Your task to perform on an android device: Open Google Chrome and open the bookmarks view Image 0: 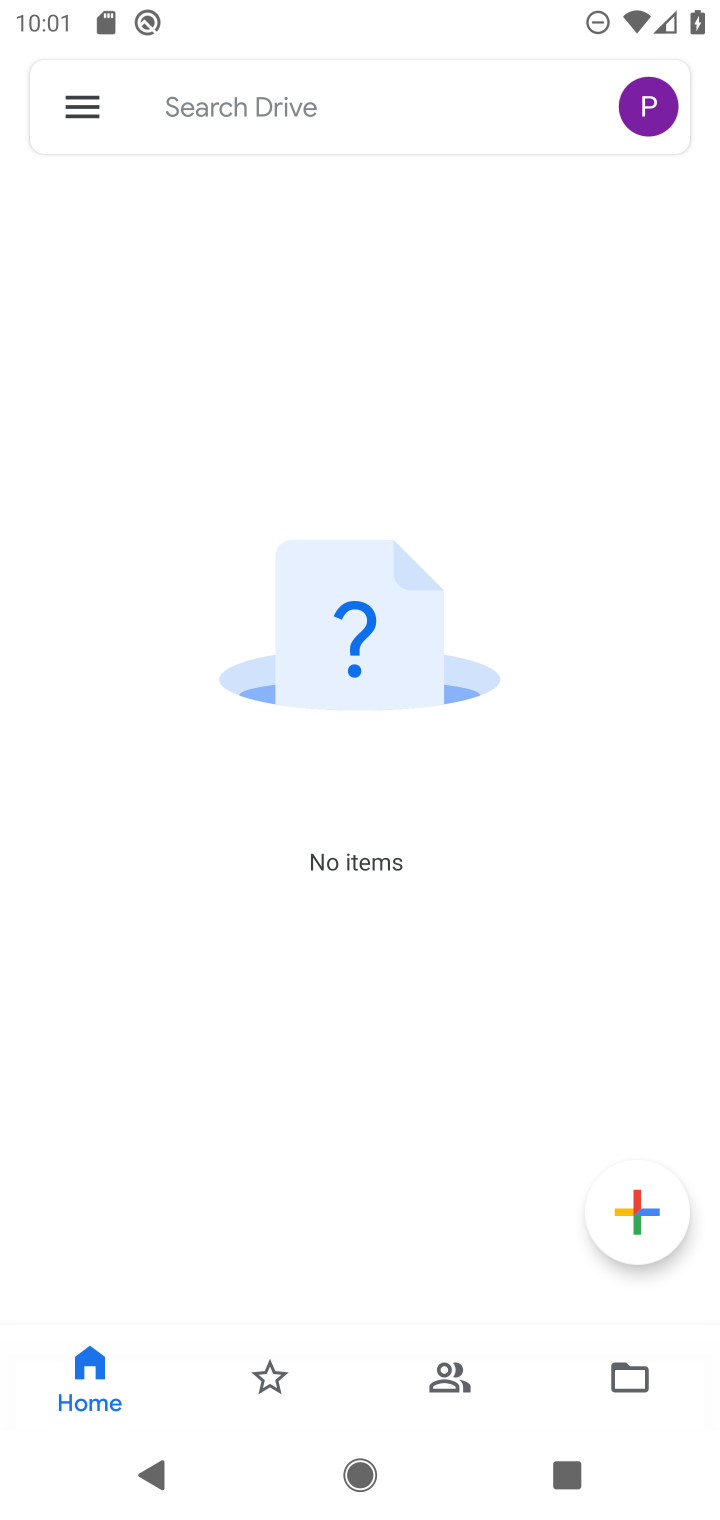
Step 0: press home button
Your task to perform on an android device: Open Google Chrome and open the bookmarks view Image 1: 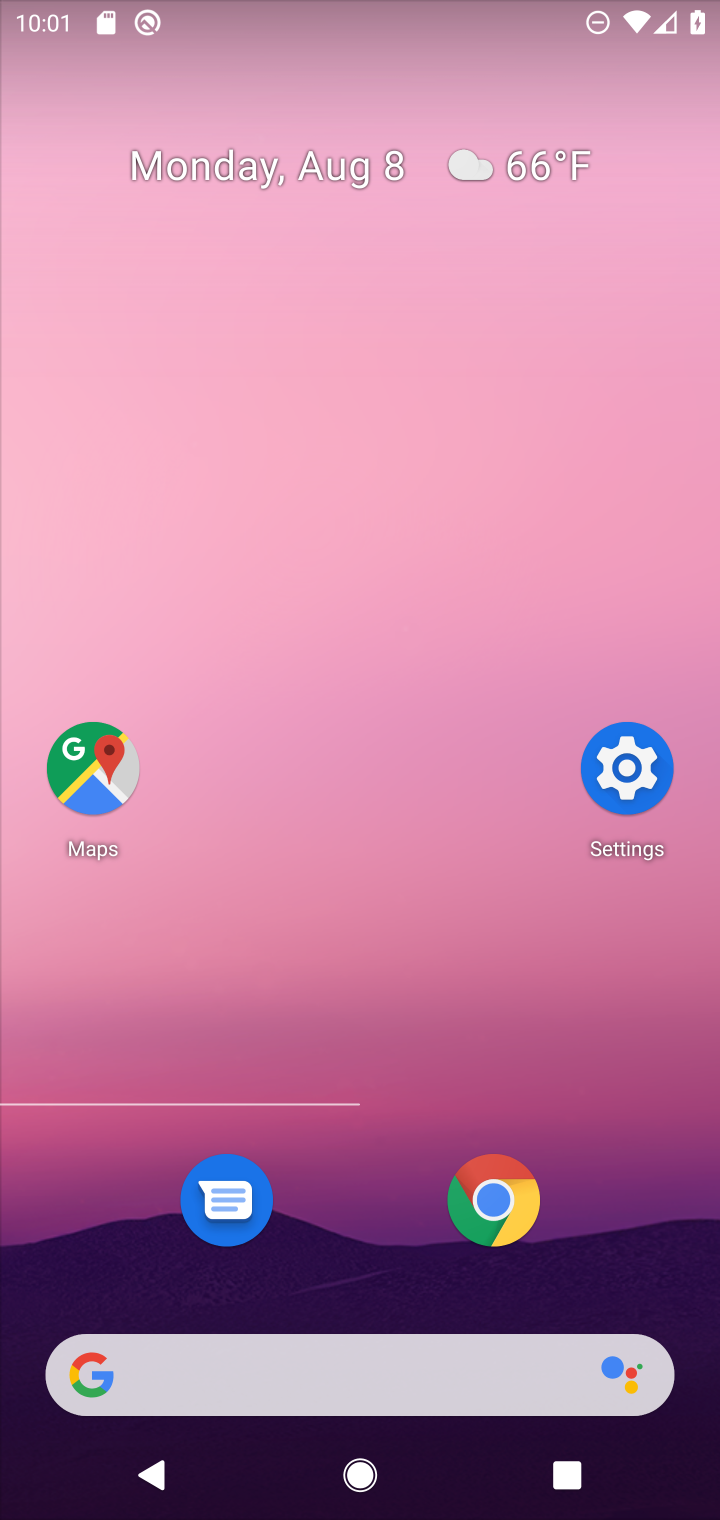
Step 1: click (500, 1207)
Your task to perform on an android device: Open Google Chrome and open the bookmarks view Image 2: 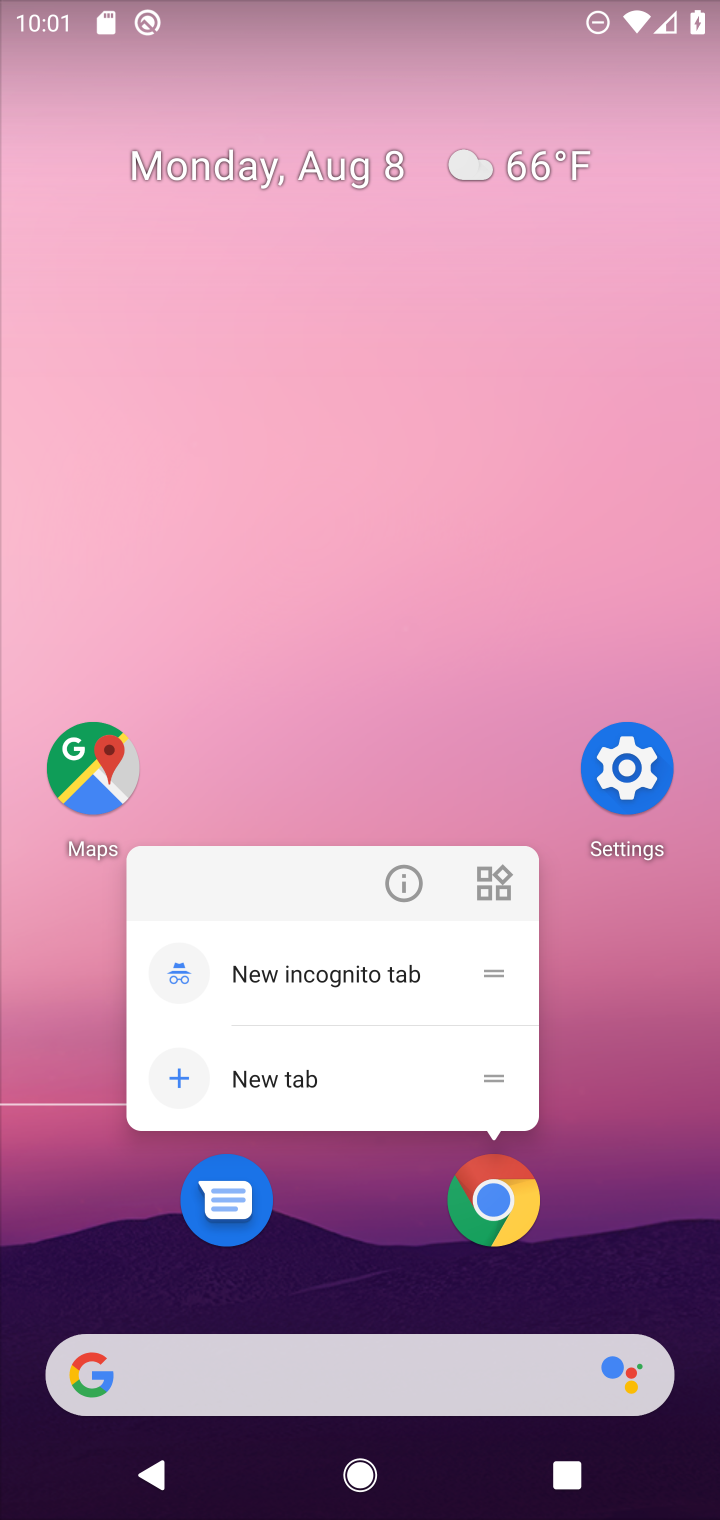
Step 2: click (500, 1210)
Your task to perform on an android device: Open Google Chrome and open the bookmarks view Image 3: 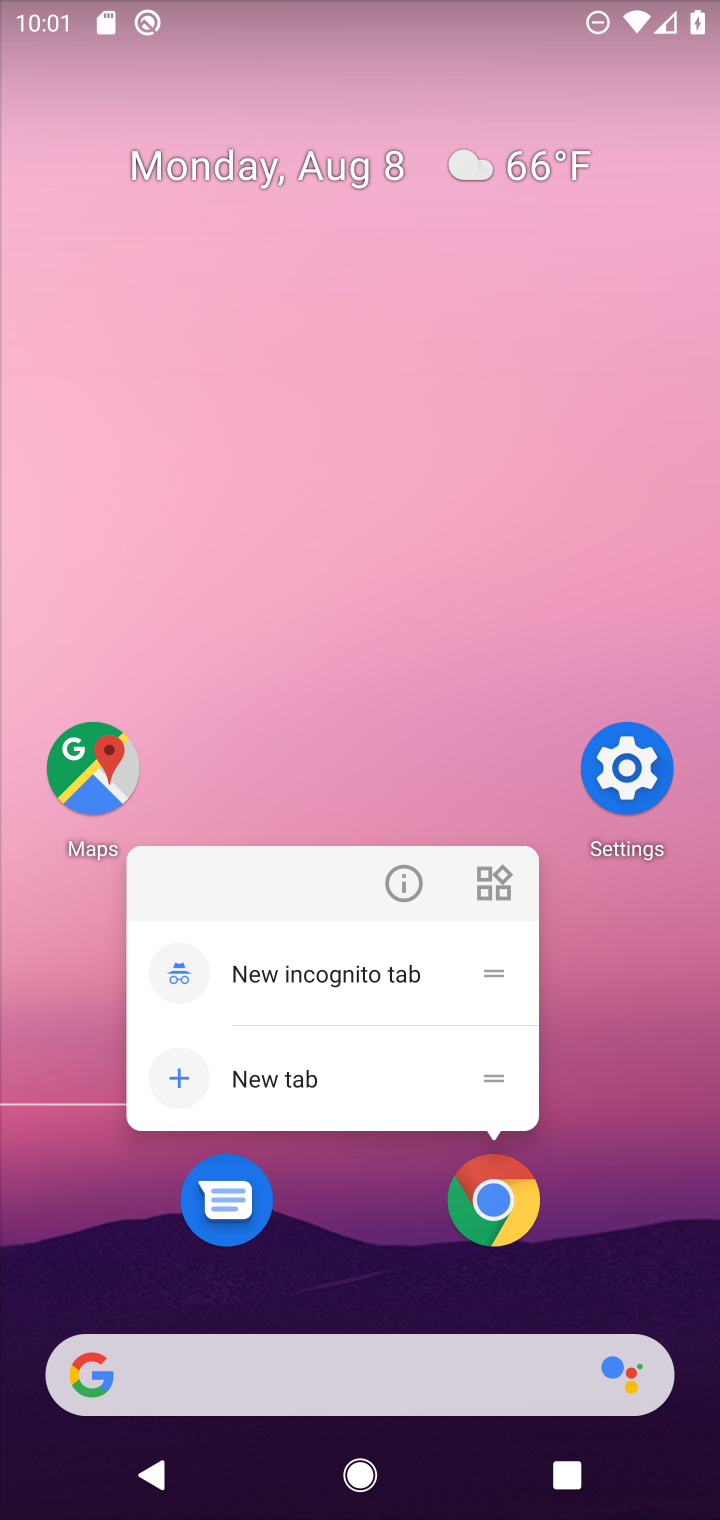
Step 3: click (476, 1212)
Your task to perform on an android device: Open Google Chrome and open the bookmarks view Image 4: 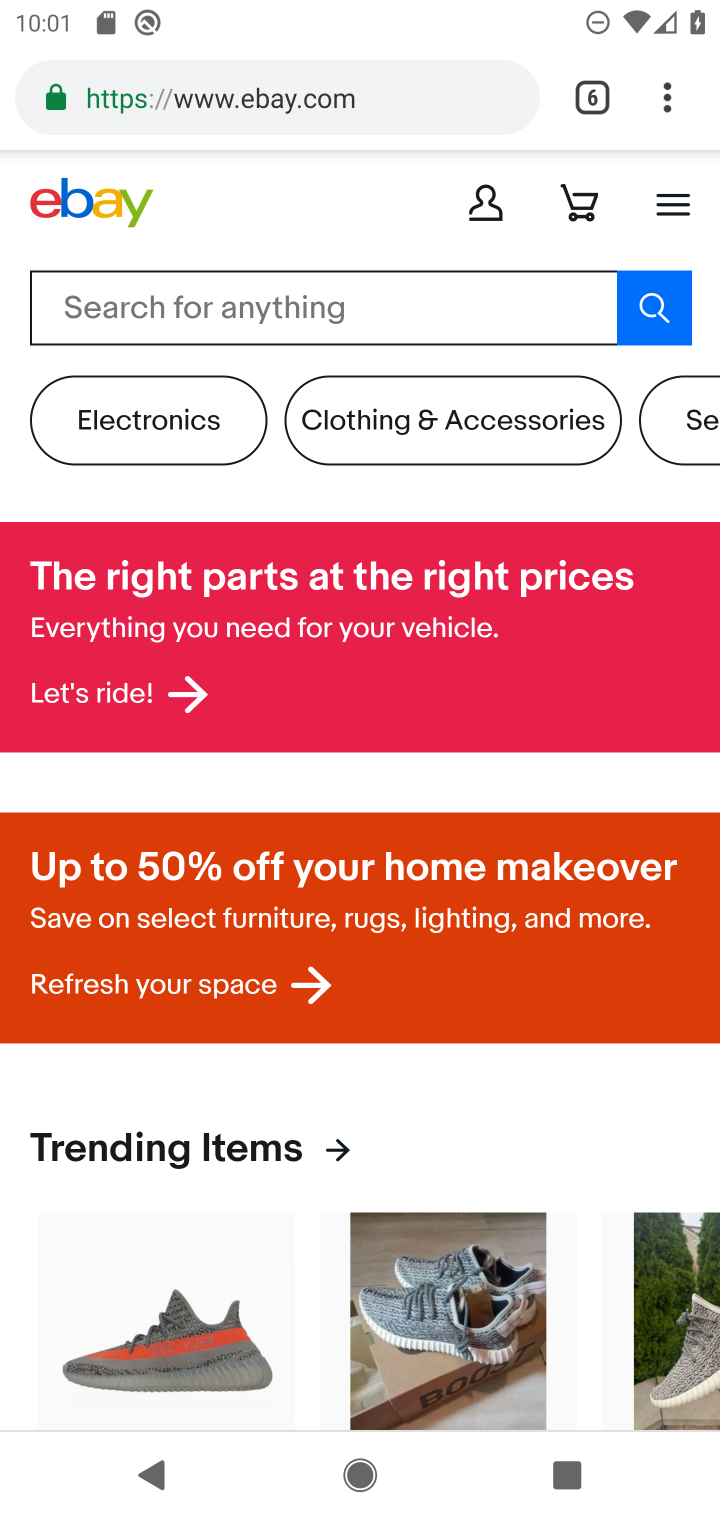
Step 4: task complete